Your task to perform on an android device: Open calendar and show me the second week of next month Image 0: 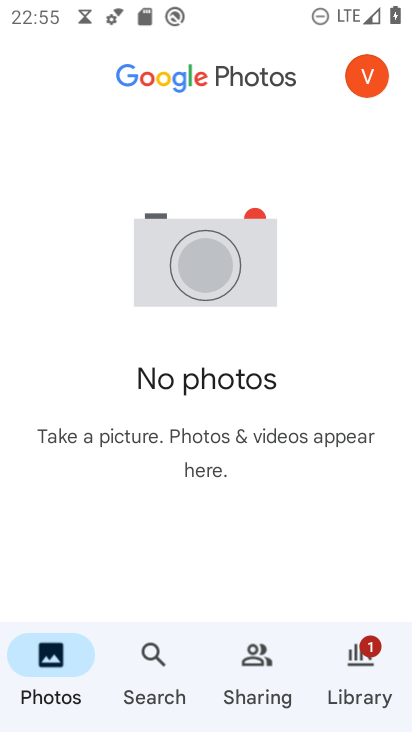
Step 0: press home button
Your task to perform on an android device: Open calendar and show me the second week of next month Image 1: 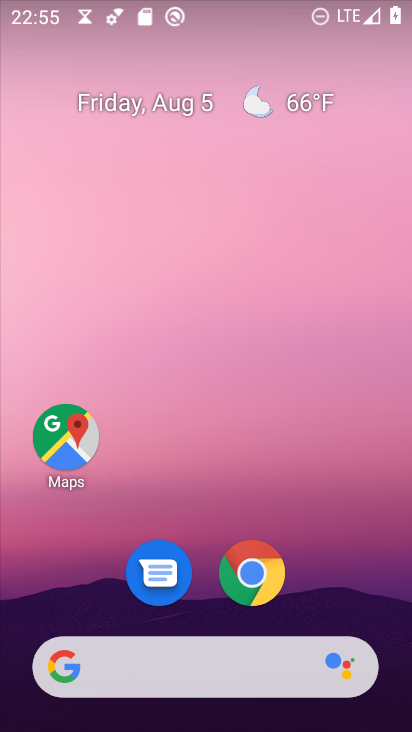
Step 1: drag from (165, 667) to (142, 217)
Your task to perform on an android device: Open calendar and show me the second week of next month Image 2: 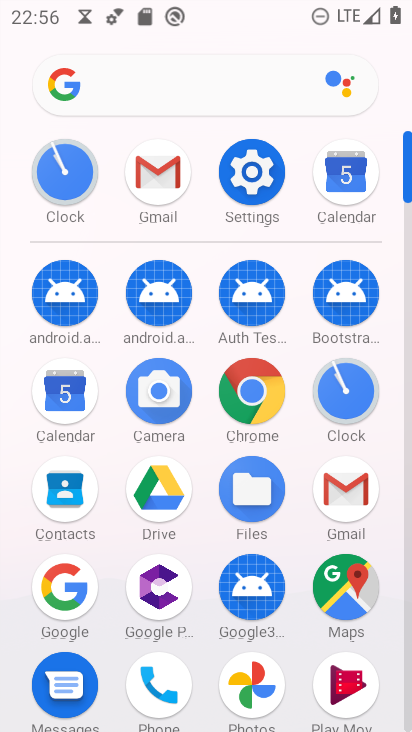
Step 2: click (345, 177)
Your task to perform on an android device: Open calendar and show me the second week of next month Image 3: 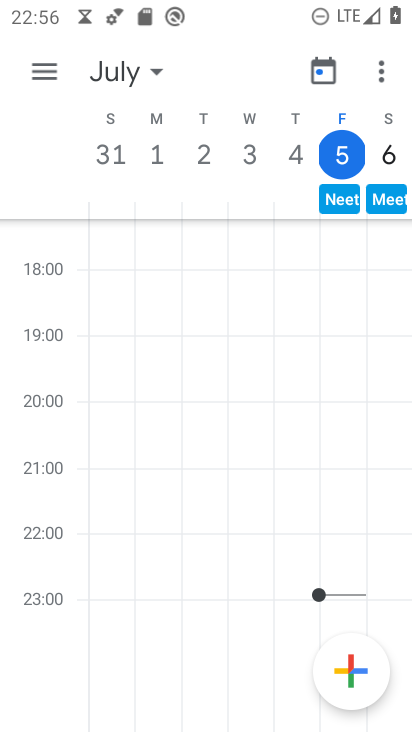
Step 3: click (323, 73)
Your task to perform on an android device: Open calendar and show me the second week of next month Image 4: 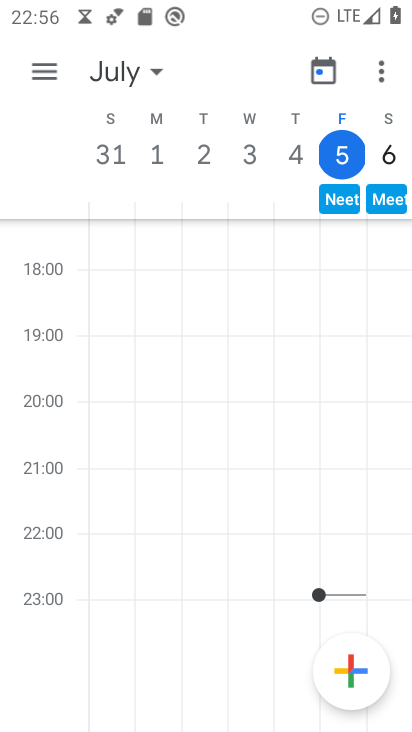
Step 4: click (158, 67)
Your task to perform on an android device: Open calendar and show me the second week of next month Image 5: 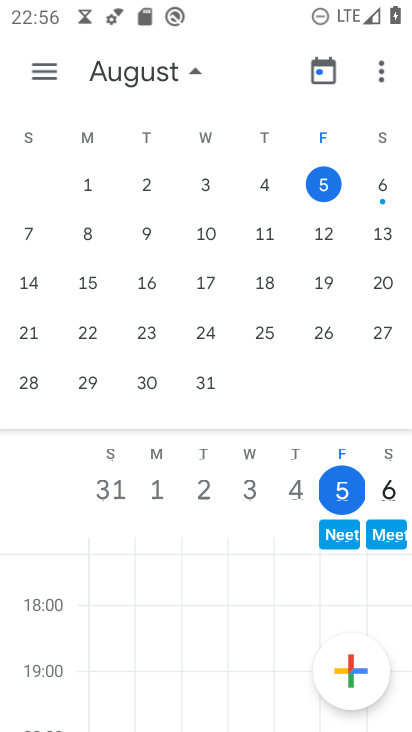
Step 5: drag from (380, 297) to (6, 308)
Your task to perform on an android device: Open calendar and show me the second week of next month Image 6: 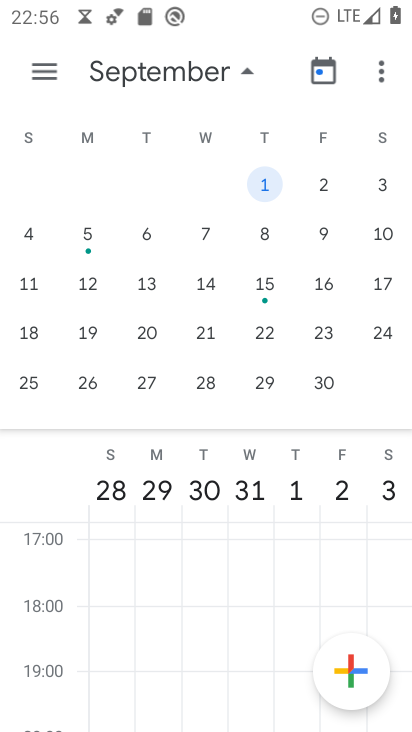
Step 6: click (89, 286)
Your task to perform on an android device: Open calendar and show me the second week of next month Image 7: 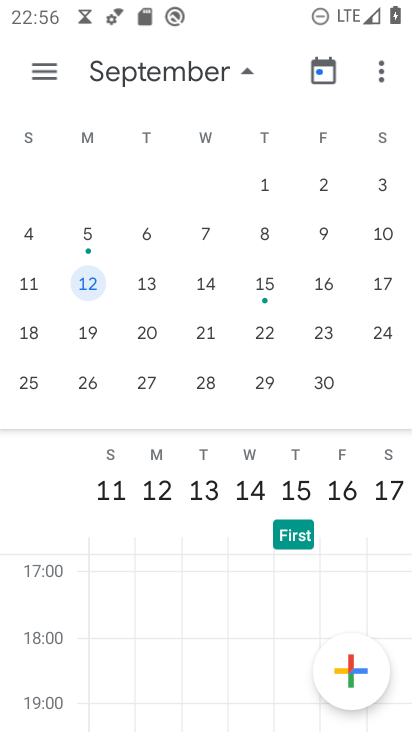
Step 7: click (53, 66)
Your task to perform on an android device: Open calendar and show me the second week of next month Image 8: 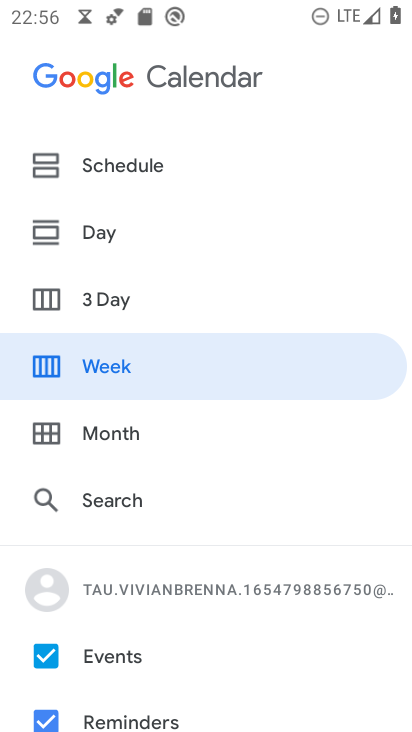
Step 8: click (147, 368)
Your task to perform on an android device: Open calendar and show me the second week of next month Image 9: 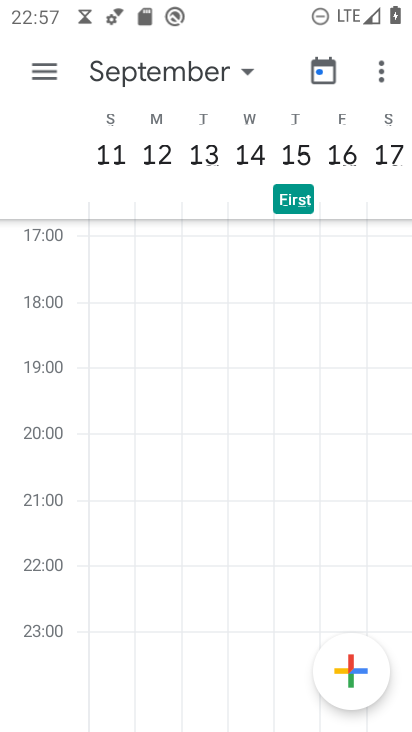
Step 9: task complete